Your task to perform on an android device: Show me popular games on the Play Store Image 0: 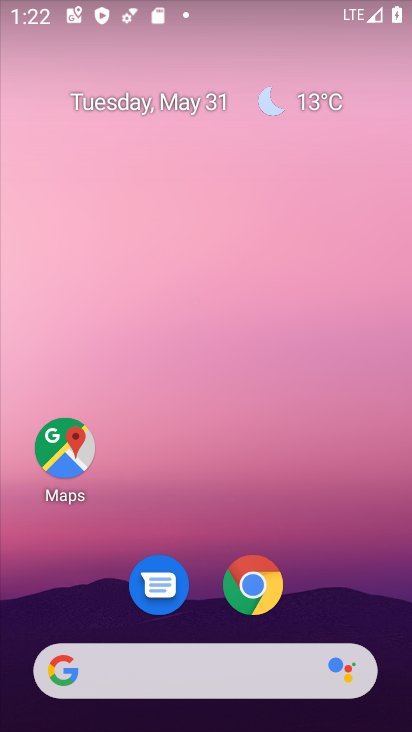
Step 0: drag from (224, 512) to (204, 26)
Your task to perform on an android device: Show me popular games on the Play Store Image 1: 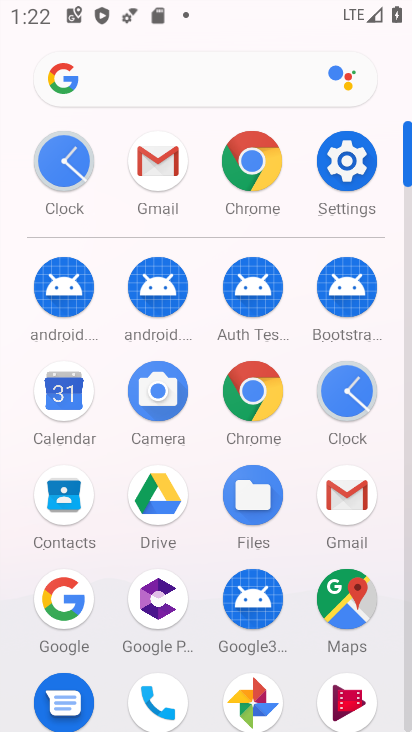
Step 1: drag from (199, 359) to (195, 74)
Your task to perform on an android device: Show me popular games on the Play Store Image 2: 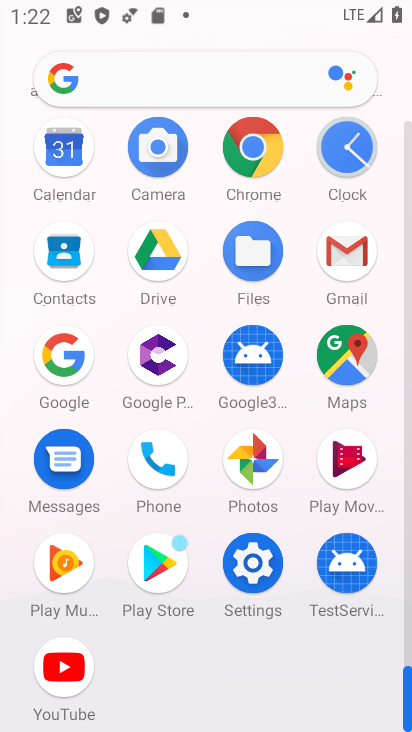
Step 2: click (173, 562)
Your task to perform on an android device: Show me popular games on the Play Store Image 3: 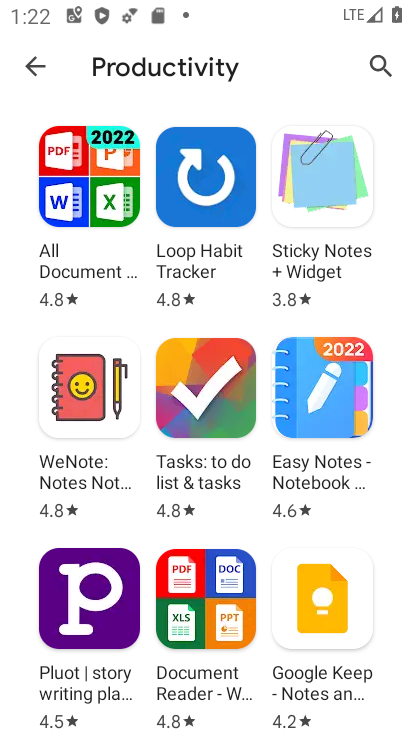
Step 3: click (35, 61)
Your task to perform on an android device: Show me popular games on the Play Store Image 4: 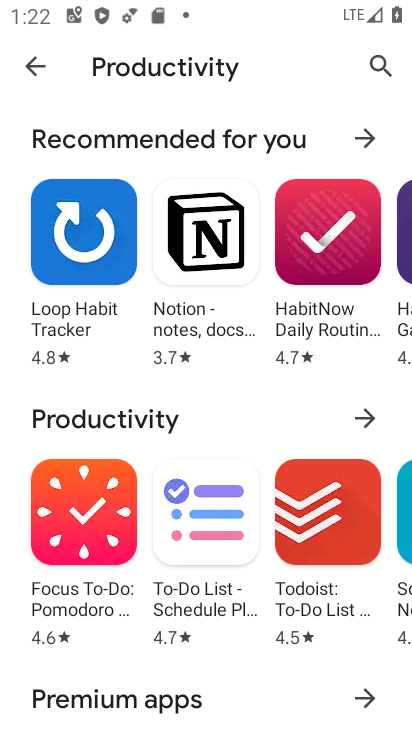
Step 4: click (32, 60)
Your task to perform on an android device: Show me popular games on the Play Store Image 5: 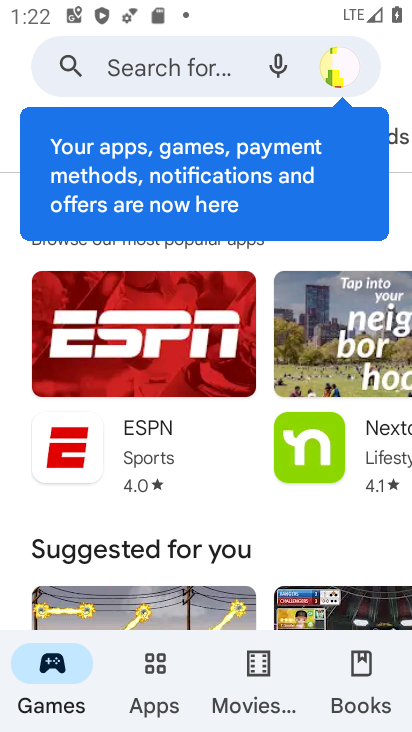
Step 5: click (70, 673)
Your task to perform on an android device: Show me popular games on the Play Store Image 6: 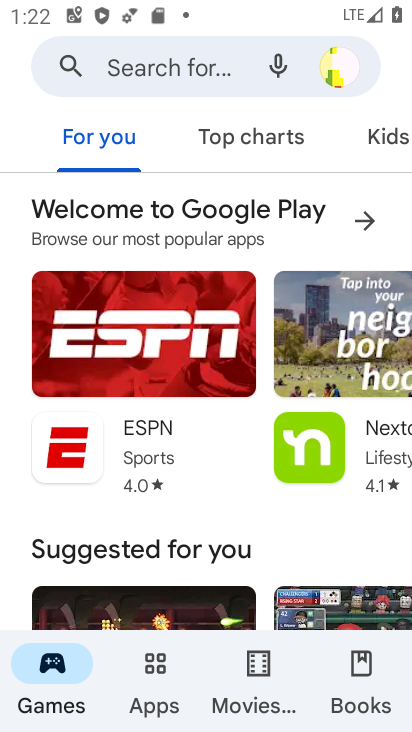
Step 6: drag from (294, 489) to (293, 1)
Your task to perform on an android device: Show me popular games on the Play Store Image 7: 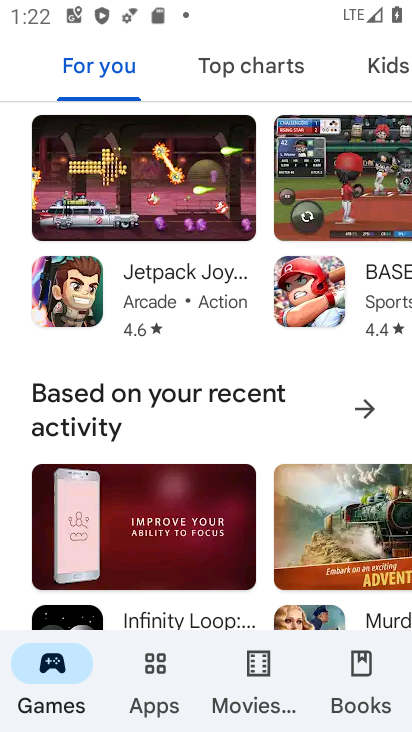
Step 7: drag from (242, 484) to (256, 38)
Your task to perform on an android device: Show me popular games on the Play Store Image 8: 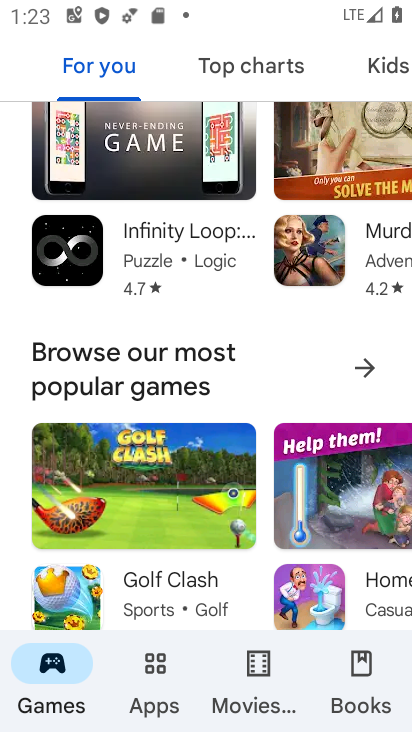
Step 8: click (370, 355)
Your task to perform on an android device: Show me popular games on the Play Store Image 9: 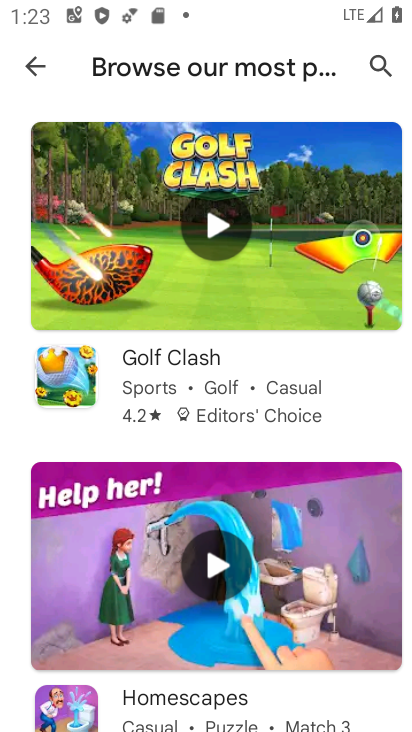
Step 9: task complete